Your task to perform on an android device: Show me popular videos on Youtube Image 0: 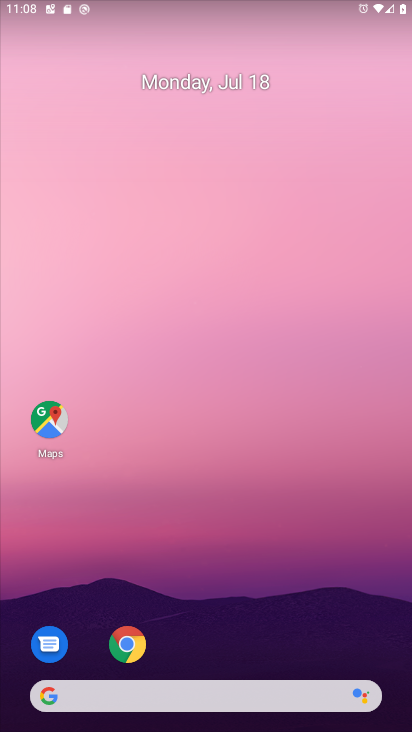
Step 0: drag from (232, 631) to (216, 251)
Your task to perform on an android device: Show me popular videos on Youtube Image 1: 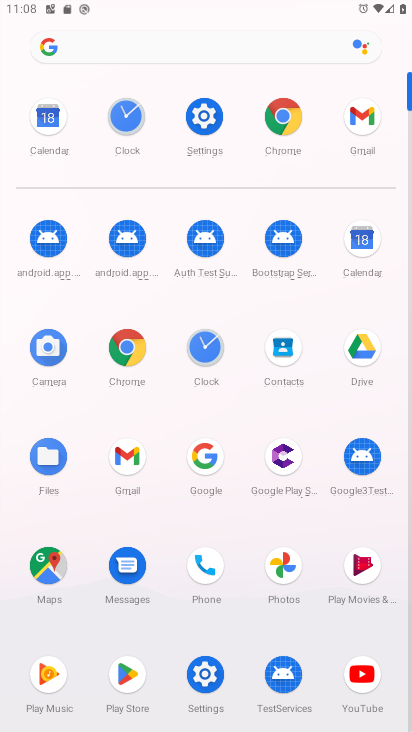
Step 1: click (366, 684)
Your task to perform on an android device: Show me popular videos on Youtube Image 2: 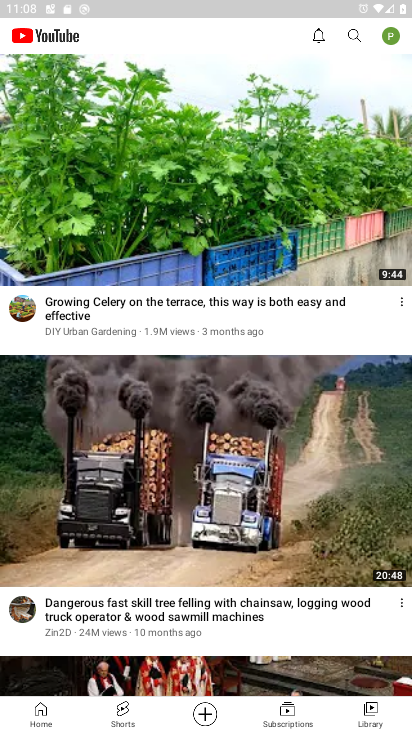
Step 2: task complete